Your task to perform on an android device: change alarm snooze length Image 0: 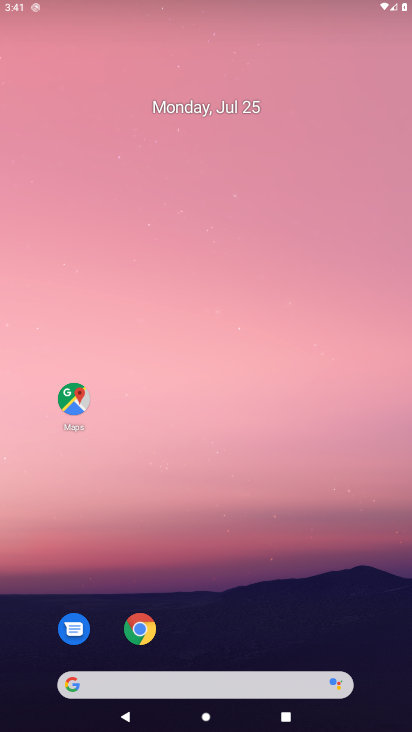
Step 0: click (133, 629)
Your task to perform on an android device: change alarm snooze length Image 1: 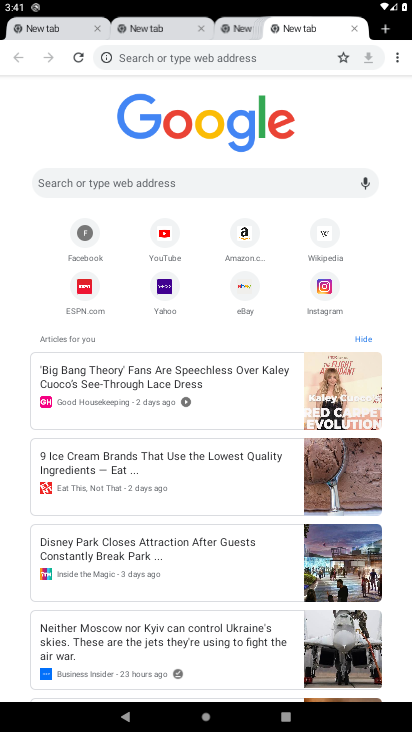
Step 1: click (394, 53)
Your task to perform on an android device: change alarm snooze length Image 2: 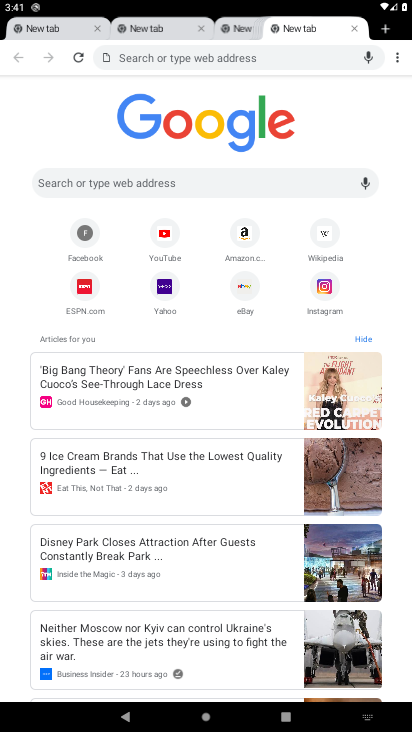
Step 2: click (396, 54)
Your task to perform on an android device: change alarm snooze length Image 3: 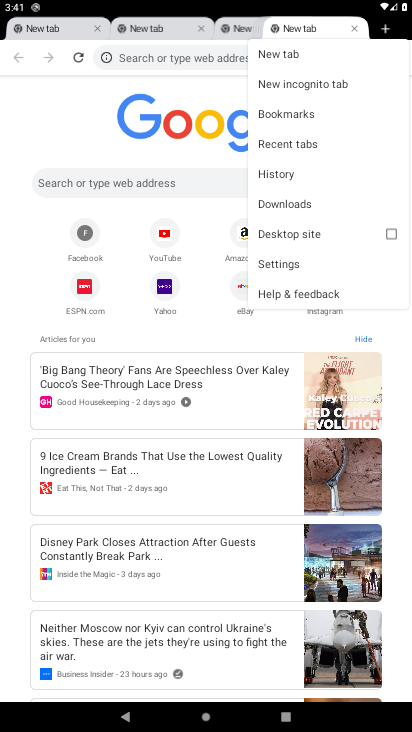
Step 3: press home button
Your task to perform on an android device: change alarm snooze length Image 4: 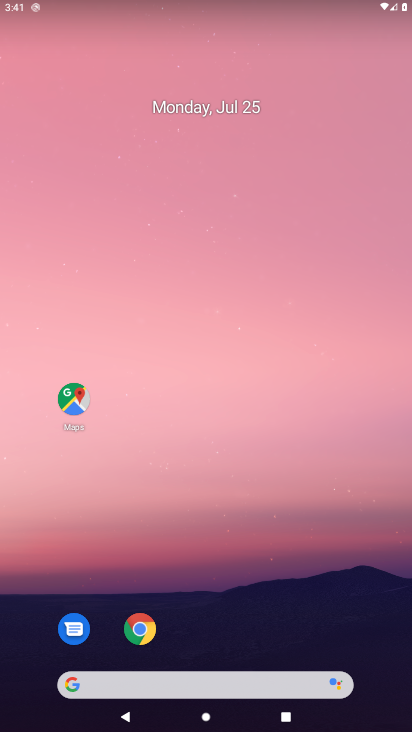
Step 4: drag from (48, 714) to (294, 117)
Your task to perform on an android device: change alarm snooze length Image 5: 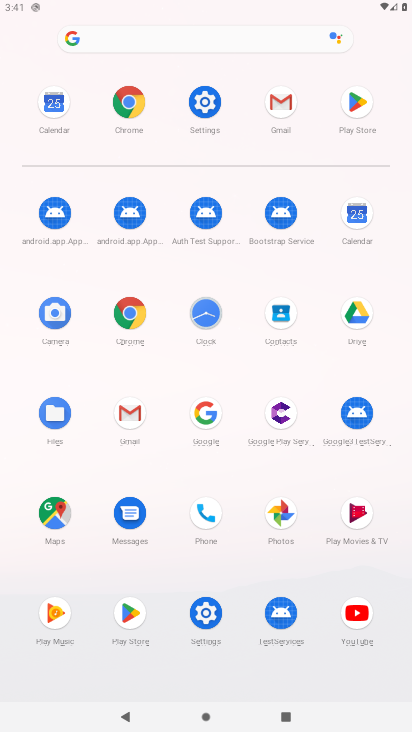
Step 5: click (198, 302)
Your task to perform on an android device: change alarm snooze length Image 6: 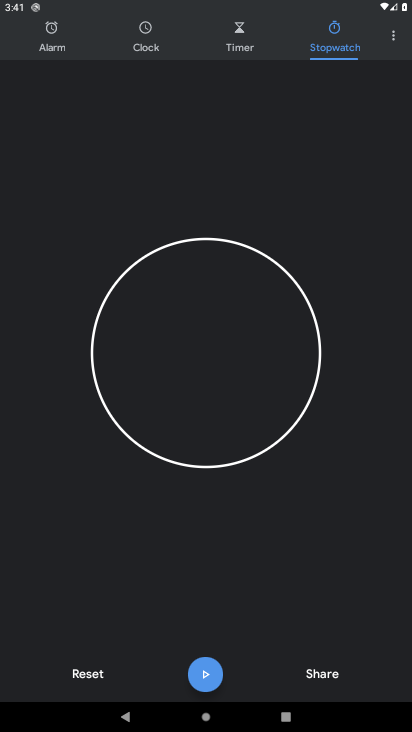
Step 6: click (51, 37)
Your task to perform on an android device: change alarm snooze length Image 7: 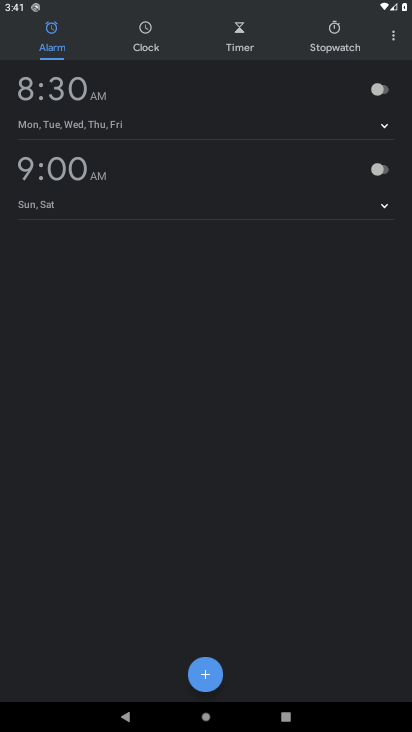
Step 7: click (387, 45)
Your task to perform on an android device: change alarm snooze length Image 8: 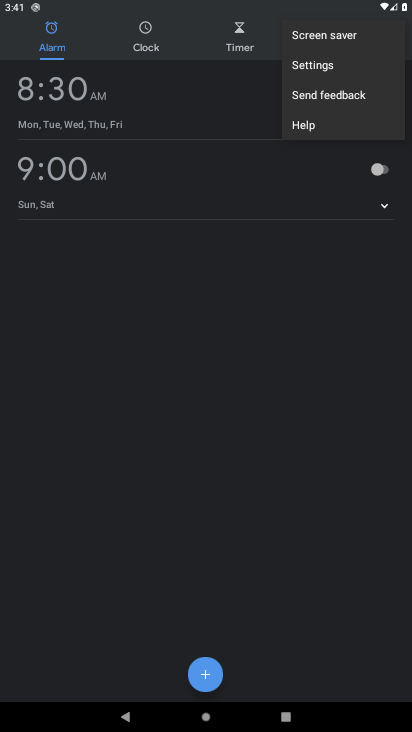
Step 8: click (307, 70)
Your task to perform on an android device: change alarm snooze length Image 9: 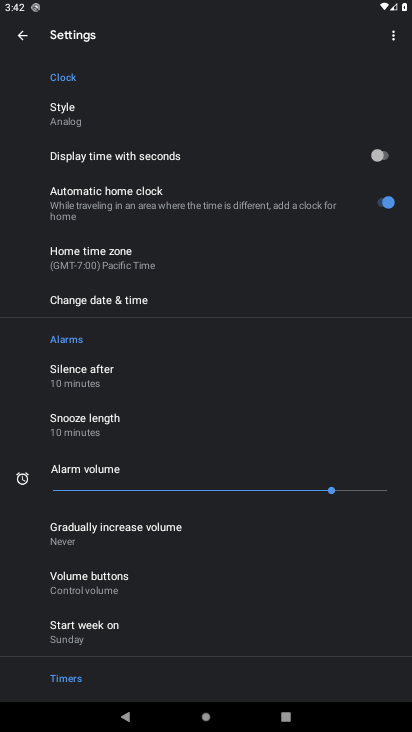
Step 9: drag from (162, 580) to (176, 313)
Your task to perform on an android device: change alarm snooze length Image 10: 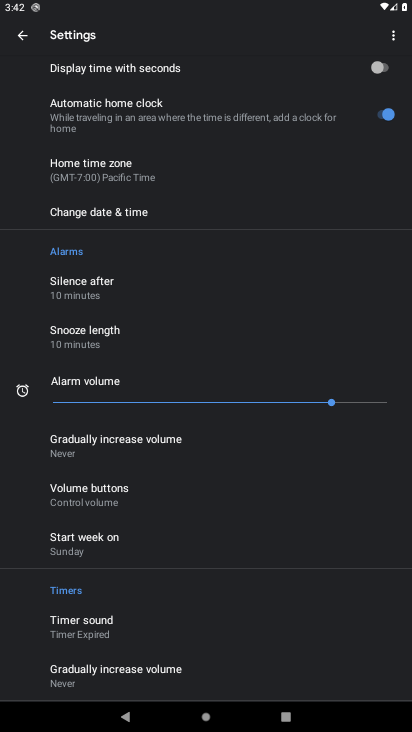
Step 10: click (98, 343)
Your task to perform on an android device: change alarm snooze length Image 11: 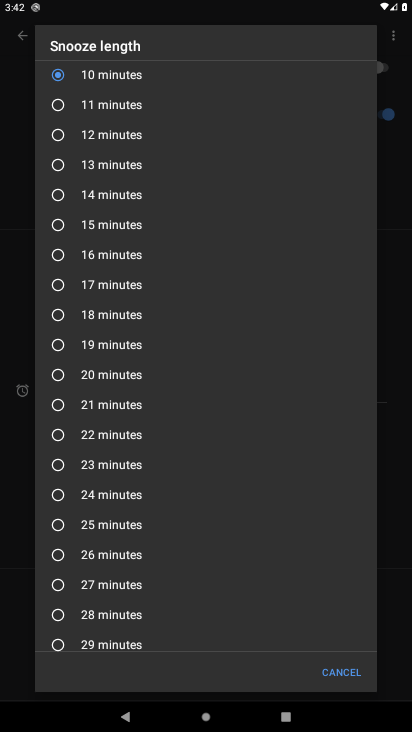
Step 11: click (54, 219)
Your task to perform on an android device: change alarm snooze length Image 12: 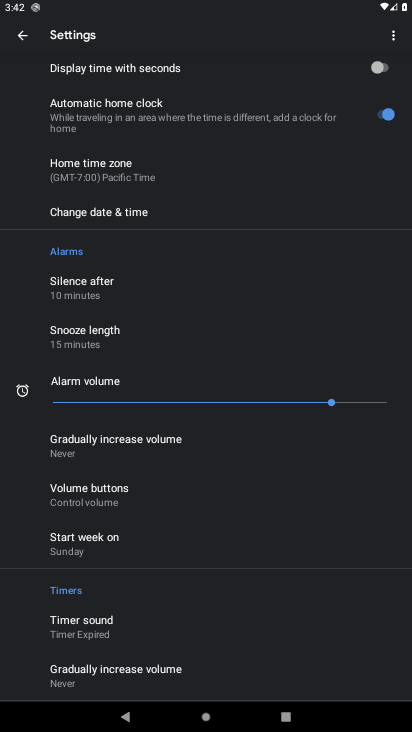
Step 12: task complete